Your task to perform on an android device: What is the news today? Image 0: 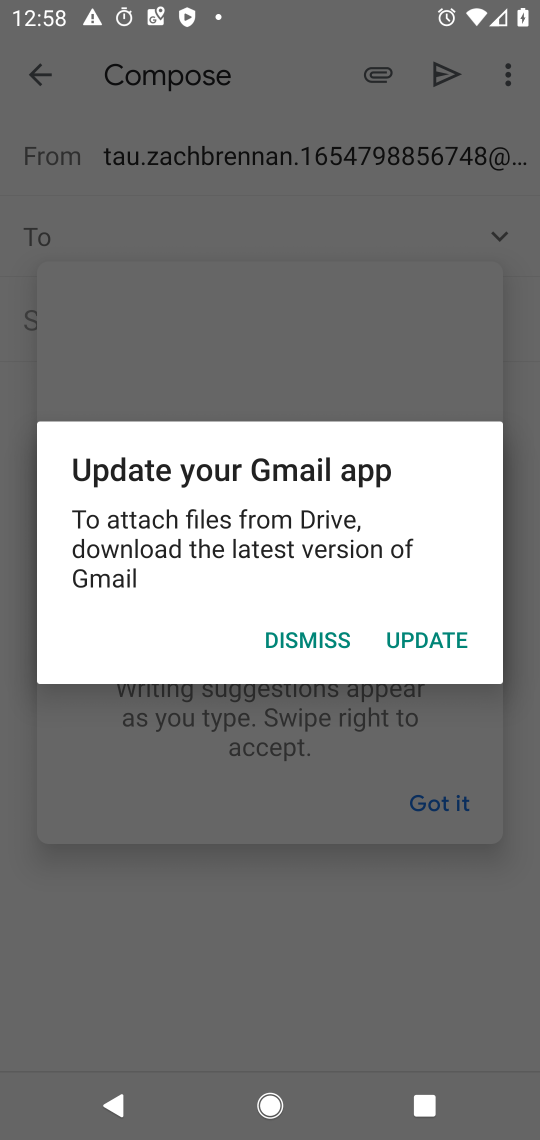
Step 0: press home button
Your task to perform on an android device: What is the news today? Image 1: 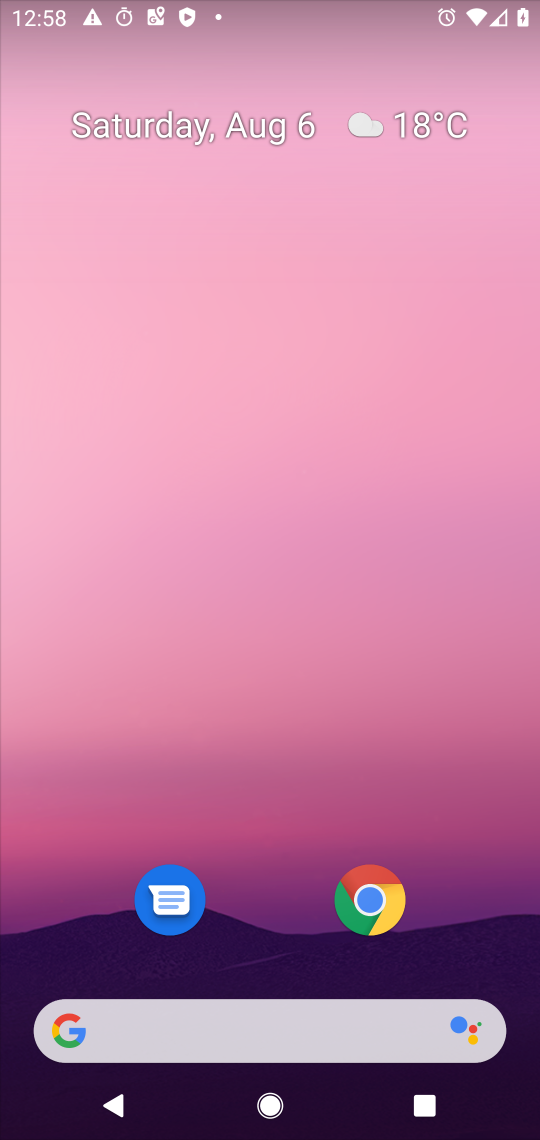
Step 1: click (171, 1041)
Your task to perform on an android device: What is the news today? Image 2: 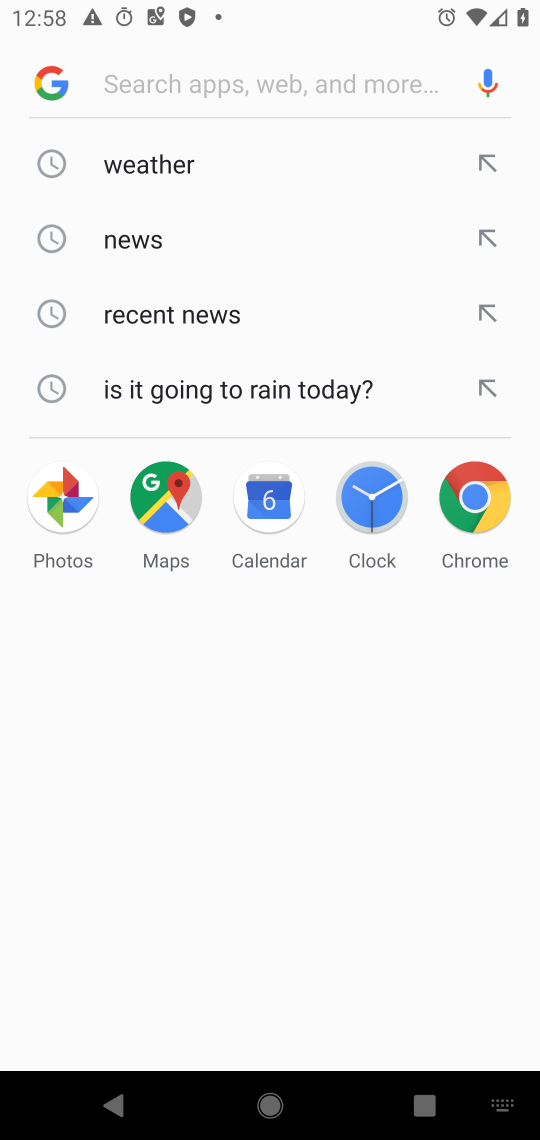
Step 2: type "news today"
Your task to perform on an android device: What is the news today? Image 3: 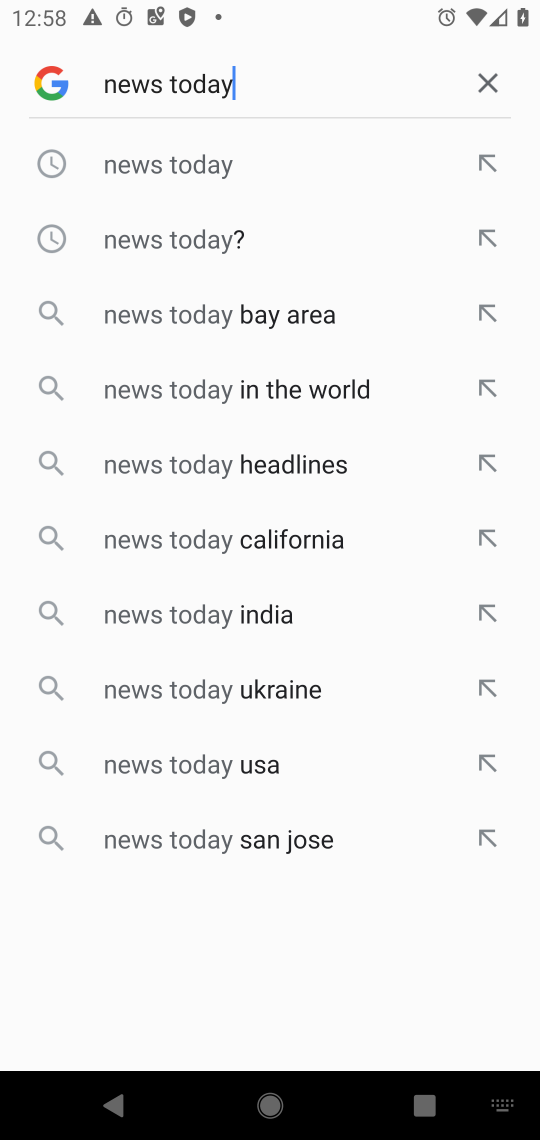
Step 3: click (215, 158)
Your task to perform on an android device: What is the news today? Image 4: 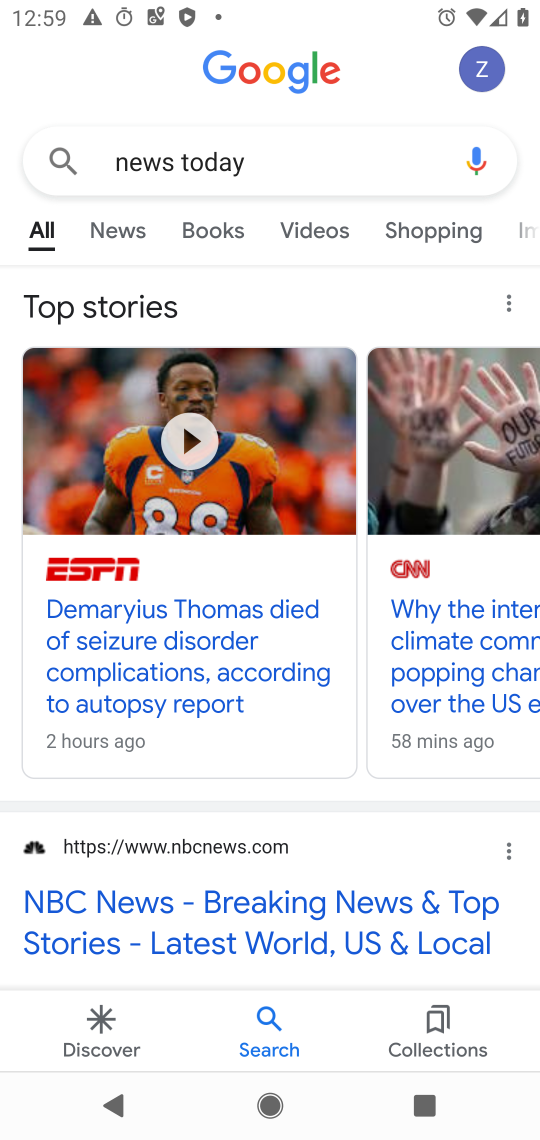
Step 4: task complete